Your task to perform on an android device: Go to Reddit.com Image 0: 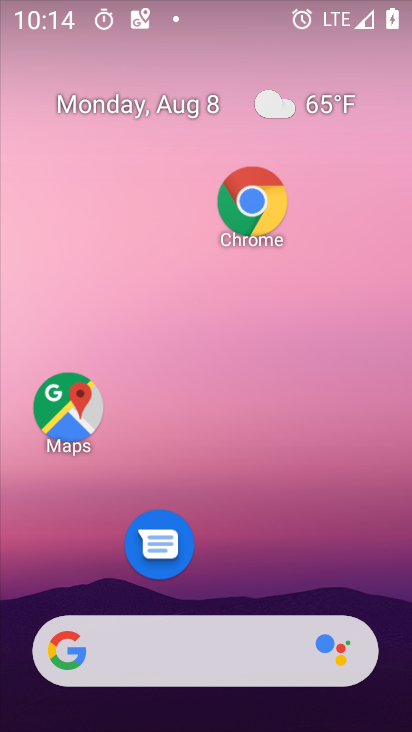
Step 0: press home button
Your task to perform on an android device: Go to Reddit.com Image 1: 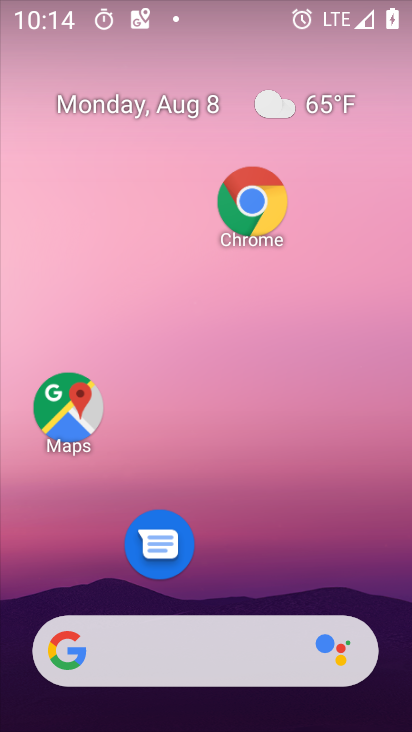
Step 1: drag from (229, 573) to (223, 102)
Your task to perform on an android device: Go to Reddit.com Image 2: 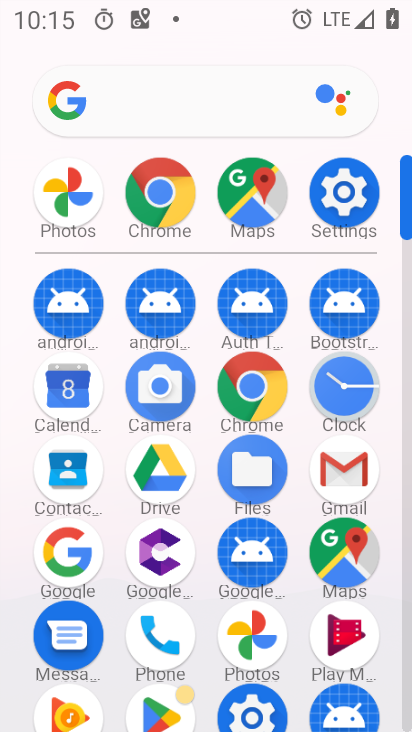
Step 2: click (247, 379)
Your task to perform on an android device: Go to Reddit.com Image 3: 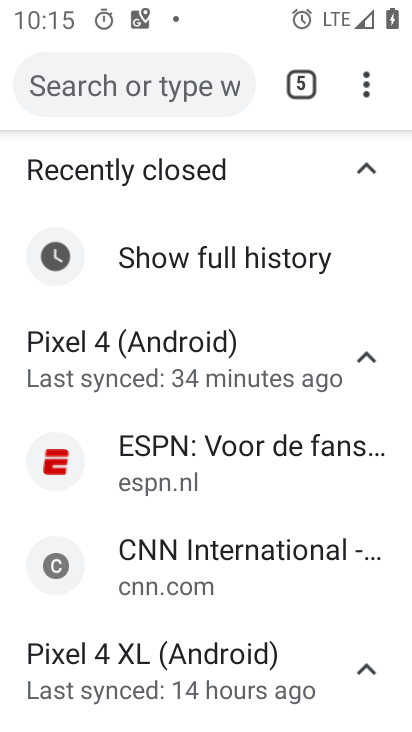
Step 3: click (290, 82)
Your task to perform on an android device: Go to Reddit.com Image 4: 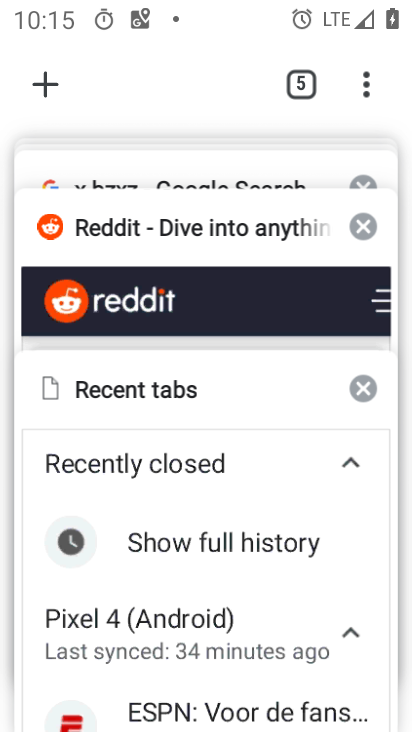
Step 4: click (166, 274)
Your task to perform on an android device: Go to Reddit.com Image 5: 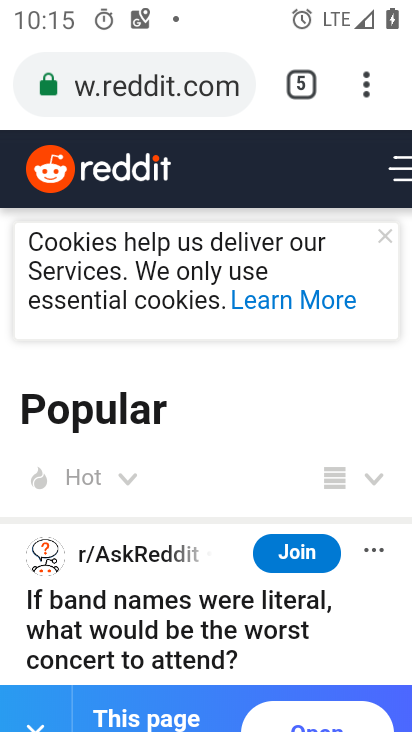
Step 5: task complete